Your task to perform on an android device: Show me popular videos on Youtube Image 0: 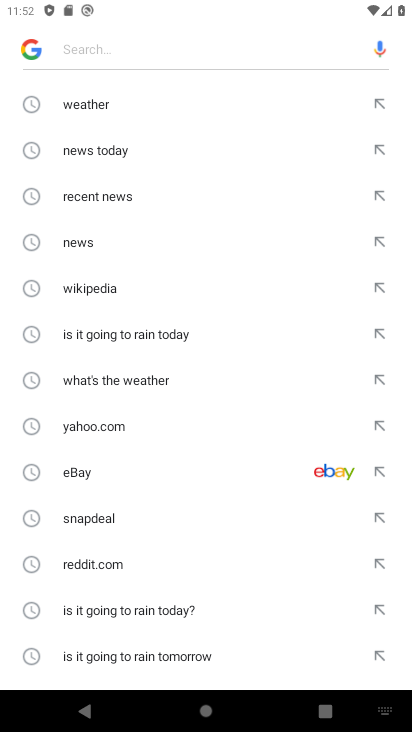
Step 0: press home button
Your task to perform on an android device: Show me popular videos on Youtube Image 1: 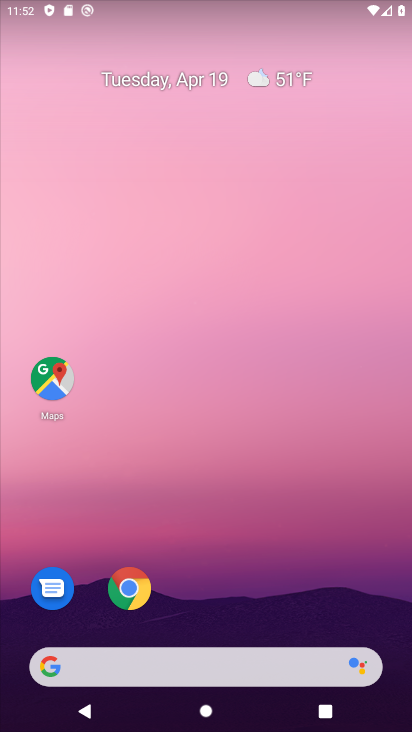
Step 1: drag from (214, 595) to (249, 165)
Your task to perform on an android device: Show me popular videos on Youtube Image 2: 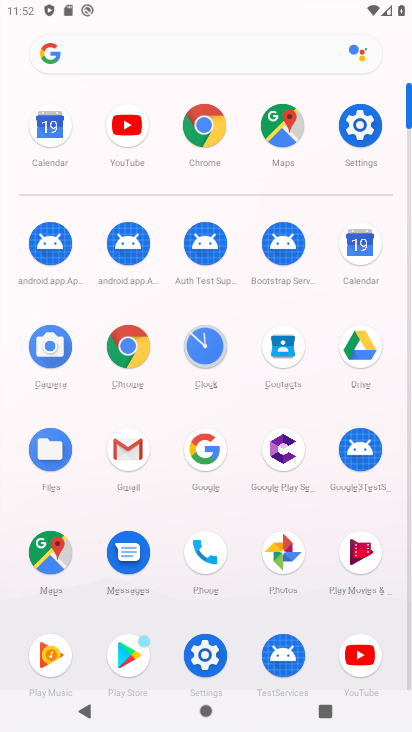
Step 2: click (358, 647)
Your task to perform on an android device: Show me popular videos on Youtube Image 3: 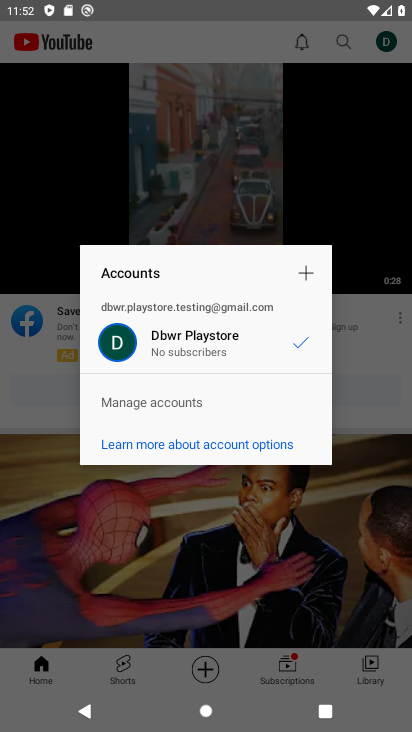
Step 3: click (338, 601)
Your task to perform on an android device: Show me popular videos on Youtube Image 4: 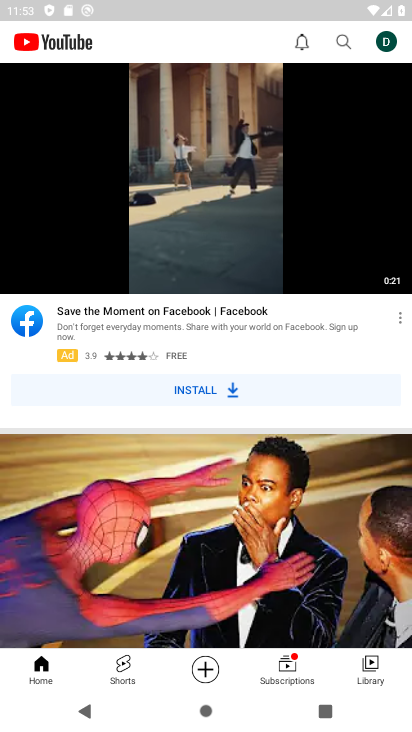
Step 4: drag from (248, 559) to (289, 217)
Your task to perform on an android device: Show me popular videos on Youtube Image 5: 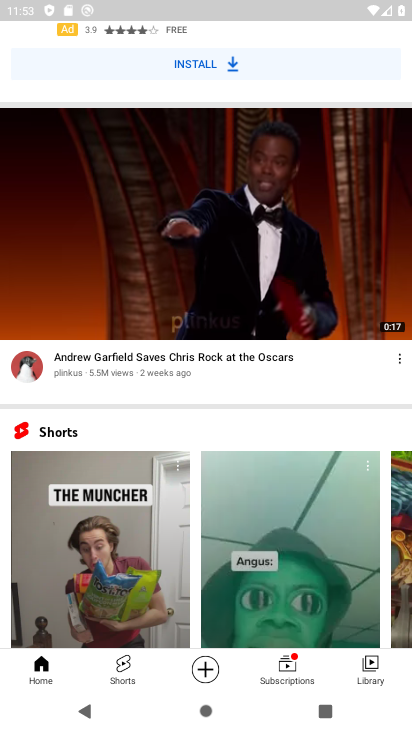
Step 5: click (372, 663)
Your task to perform on an android device: Show me popular videos on Youtube Image 6: 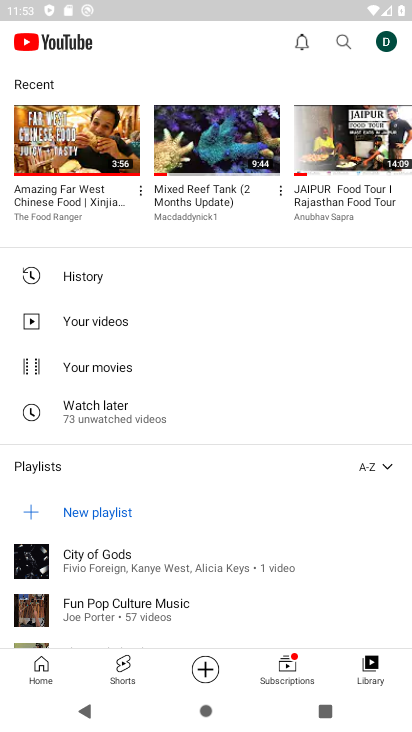
Step 6: drag from (150, 547) to (233, 215)
Your task to perform on an android device: Show me popular videos on Youtube Image 7: 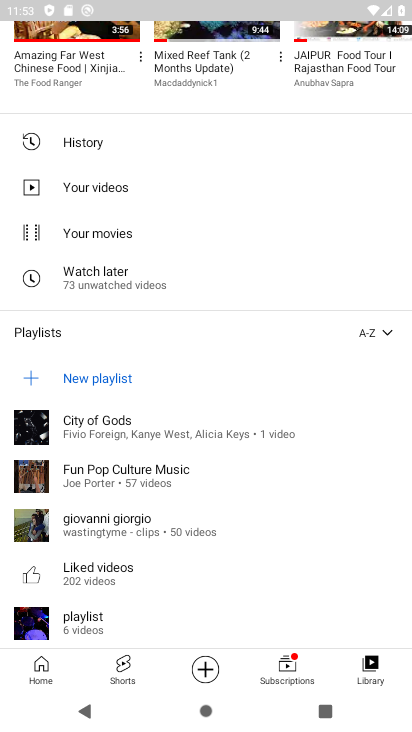
Step 7: drag from (145, 564) to (180, 299)
Your task to perform on an android device: Show me popular videos on Youtube Image 8: 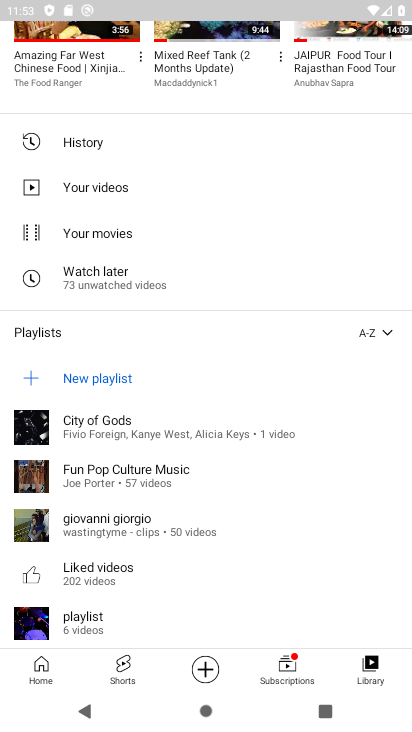
Step 8: click (32, 665)
Your task to perform on an android device: Show me popular videos on Youtube Image 9: 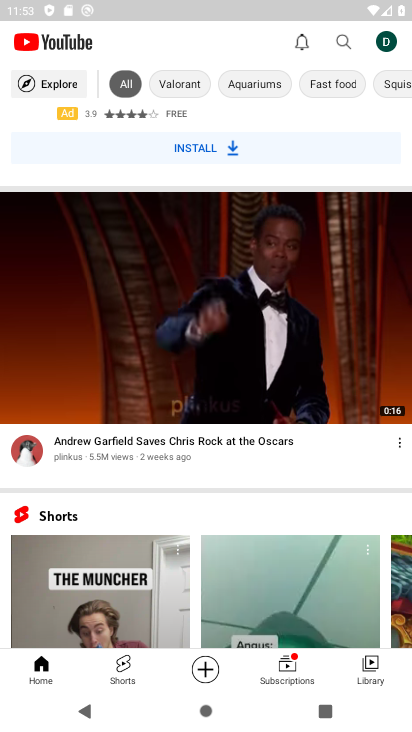
Step 9: task complete